Your task to perform on an android device: Open Google Maps and go to "Timeline" Image 0: 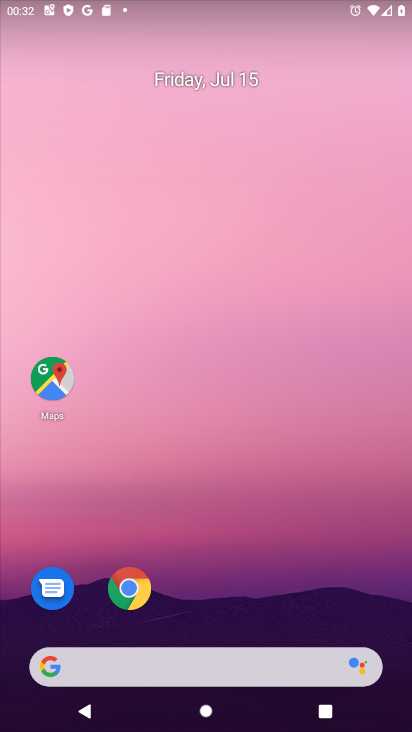
Step 0: click (47, 379)
Your task to perform on an android device: Open Google Maps and go to "Timeline" Image 1: 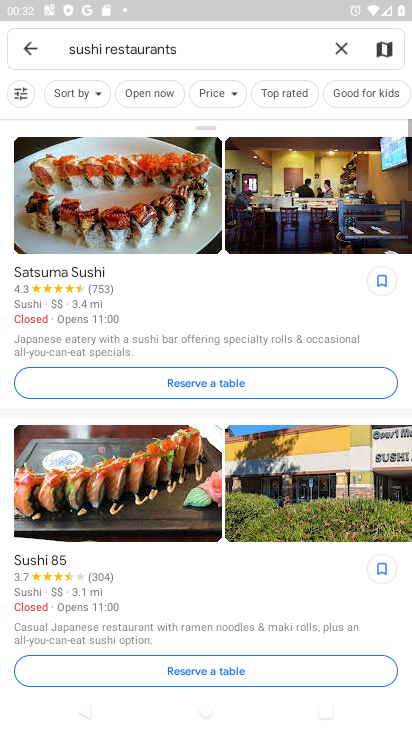
Step 1: click (30, 48)
Your task to perform on an android device: Open Google Maps and go to "Timeline" Image 2: 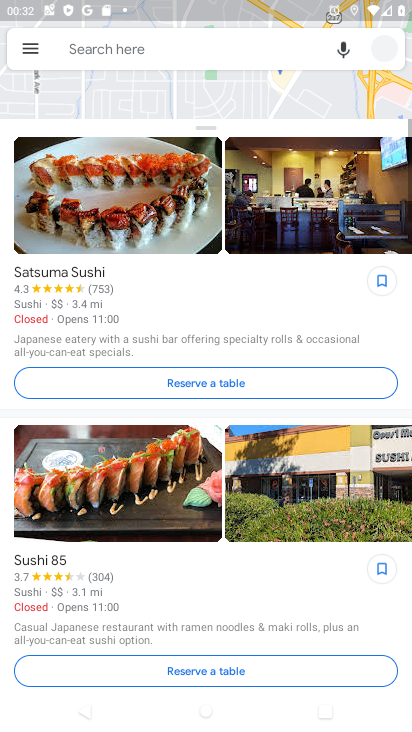
Step 2: click (32, 46)
Your task to perform on an android device: Open Google Maps and go to "Timeline" Image 3: 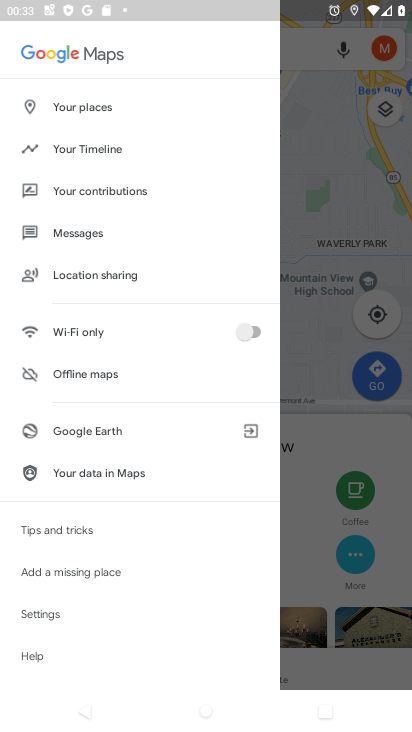
Step 3: click (86, 153)
Your task to perform on an android device: Open Google Maps and go to "Timeline" Image 4: 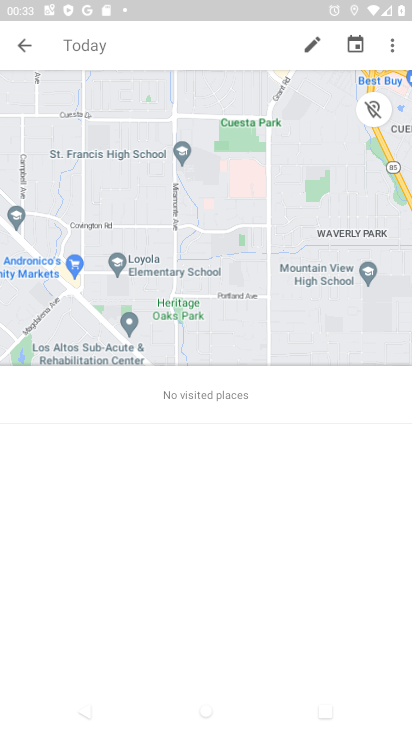
Step 4: task complete